Your task to perform on an android device: turn notification dots on Image 0: 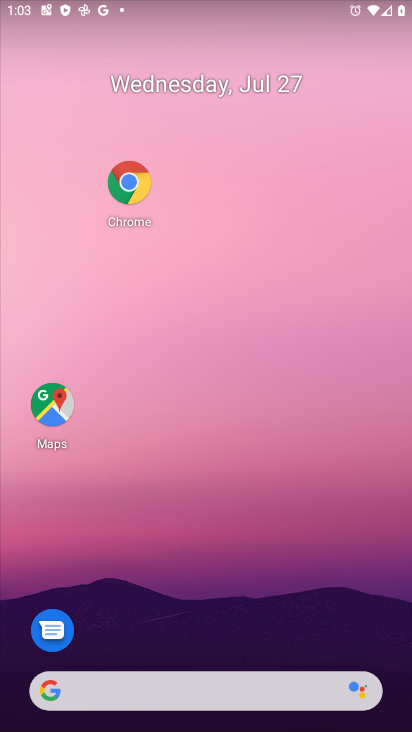
Step 0: drag from (151, 686) to (234, 109)
Your task to perform on an android device: turn notification dots on Image 1: 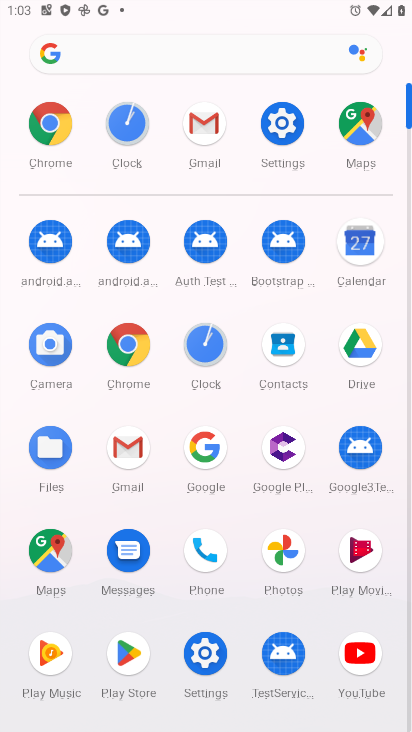
Step 1: click (272, 122)
Your task to perform on an android device: turn notification dots on Image 2: 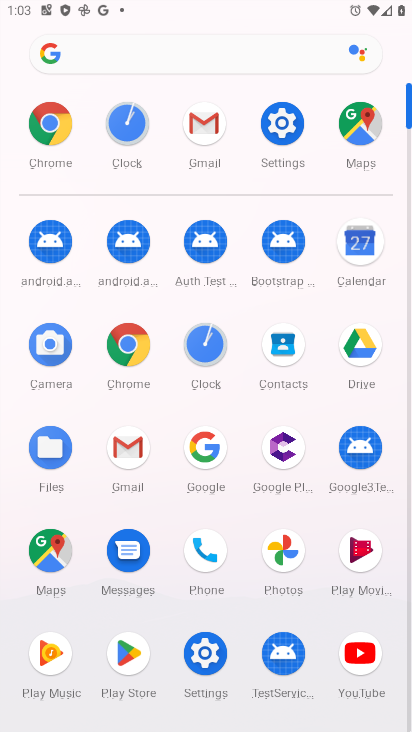
Step 2: click (272, 122)
Your task to perform on an android device: turn notification dots on Image 3: 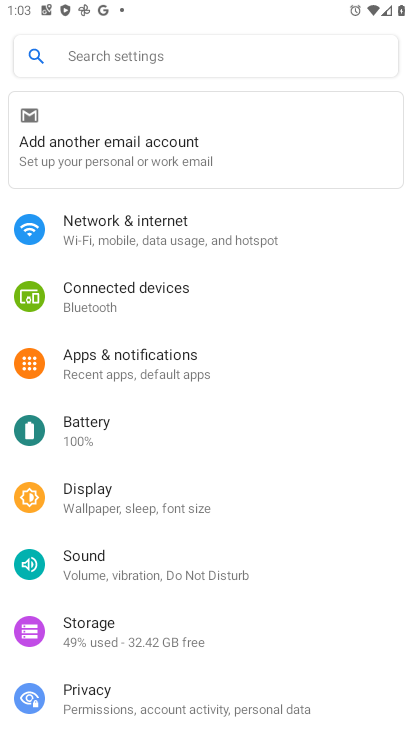
Step 3: click (227, 364)
Your task to perform on an android device: turn notification dots on Image 4: 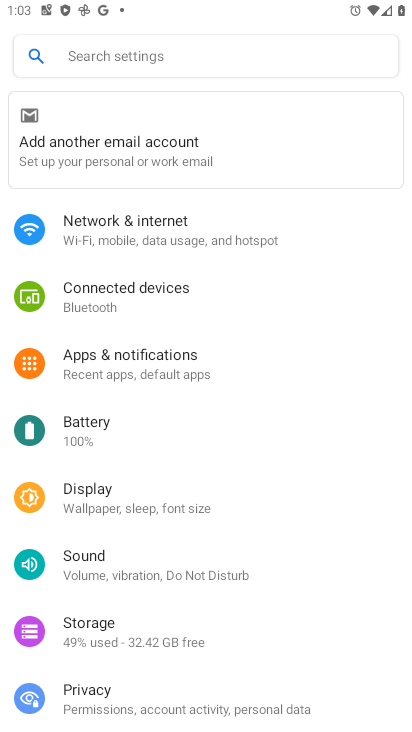
Step 4: click (227, 364)
Your task to perform on an android device: turn notification dots on Image 5: 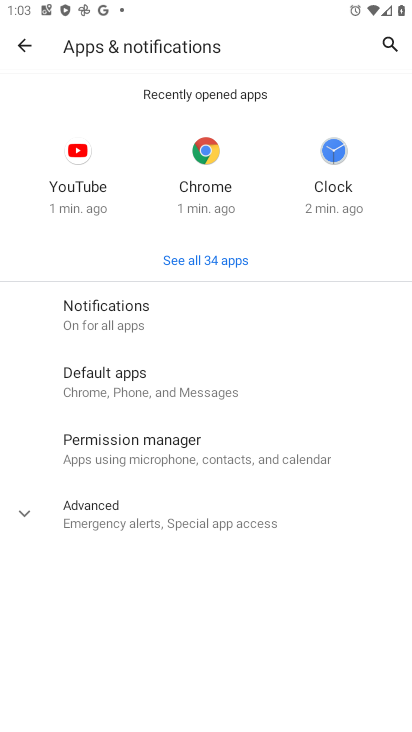
Step 5: click (202, 318)
Your task to perform on an android device: turn notification dots on Image 6: 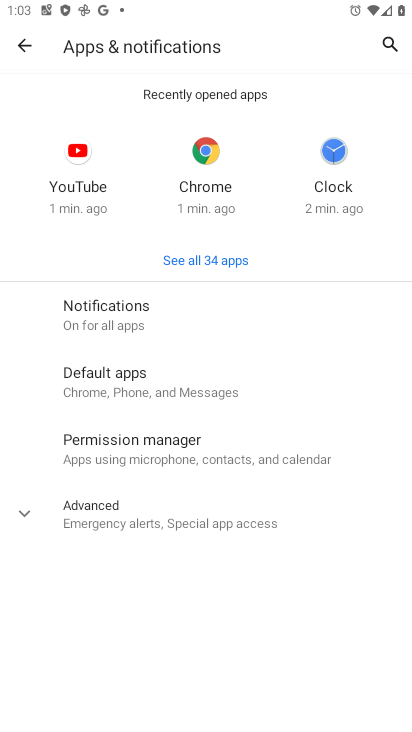
Step 6: click (202, 318)
Your task to perform on an android device: turn notification dots on Image 7: 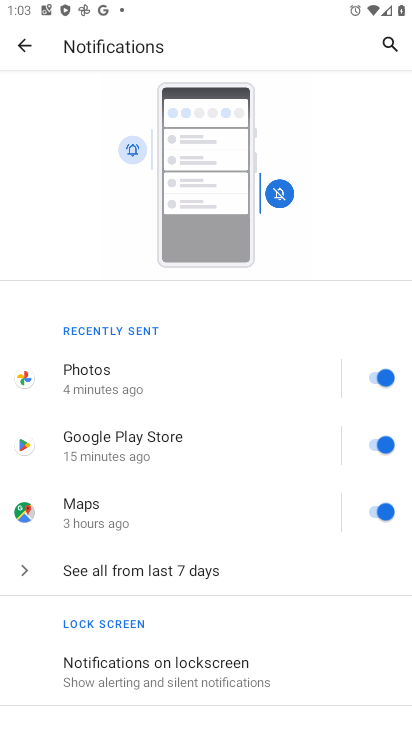
Step 7: drag from (352, 583) to (348, 125)
Your task to perform on an android device: turn notification dots on Image 8: 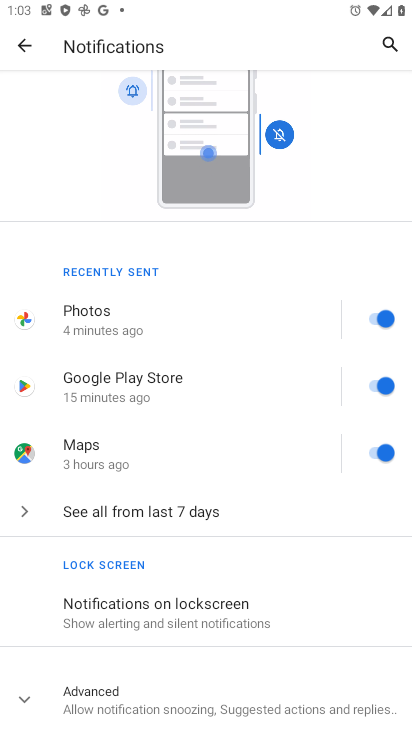
Step 8: click (238, 697)
Your task to perform on an android device: turn notification dots on Image 9: 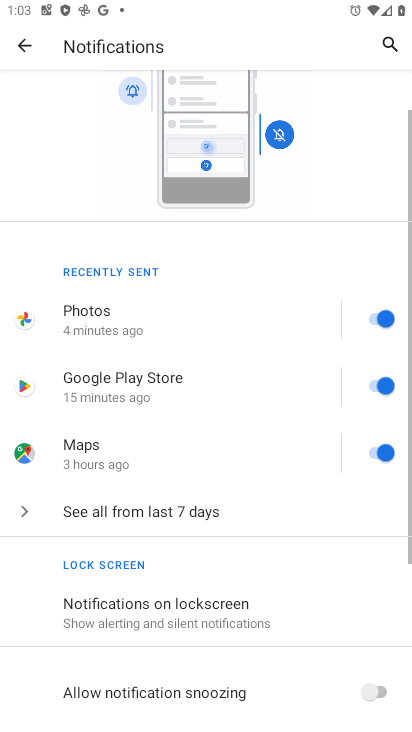
Step 9: drag from (243, 693) to (237, 96)
Your task to perform on an android device: turn notification dots on Image 10: 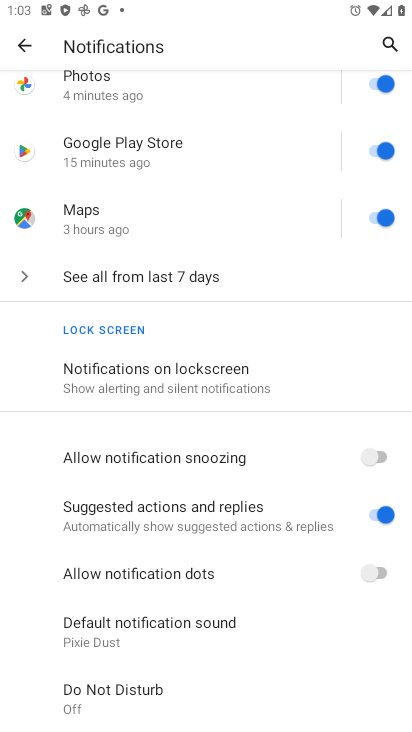
Step 10: click (370, 575)
Your task to perform on an android device: turn notification dots on Image 11: 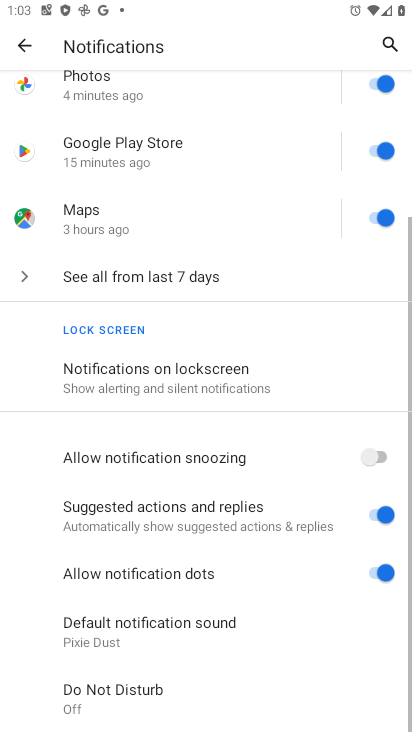
Step 11: task complete